Your task to perform on an android device: Open the stopwatch Image 0: 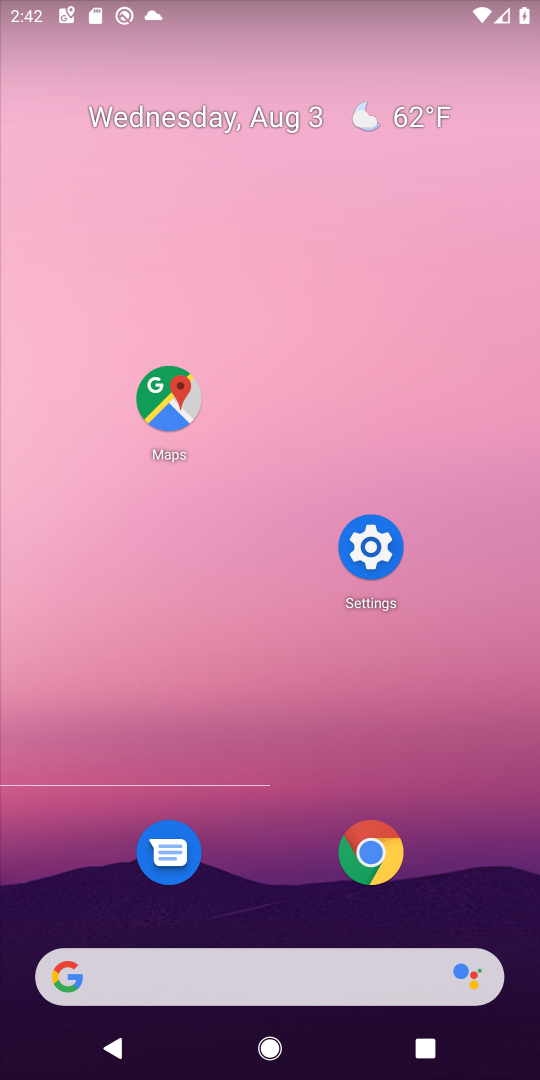
Step 0: drag from (243, 994) to (310, 363)
Your task to perform on an android device: Open the stopwatch Image 1: 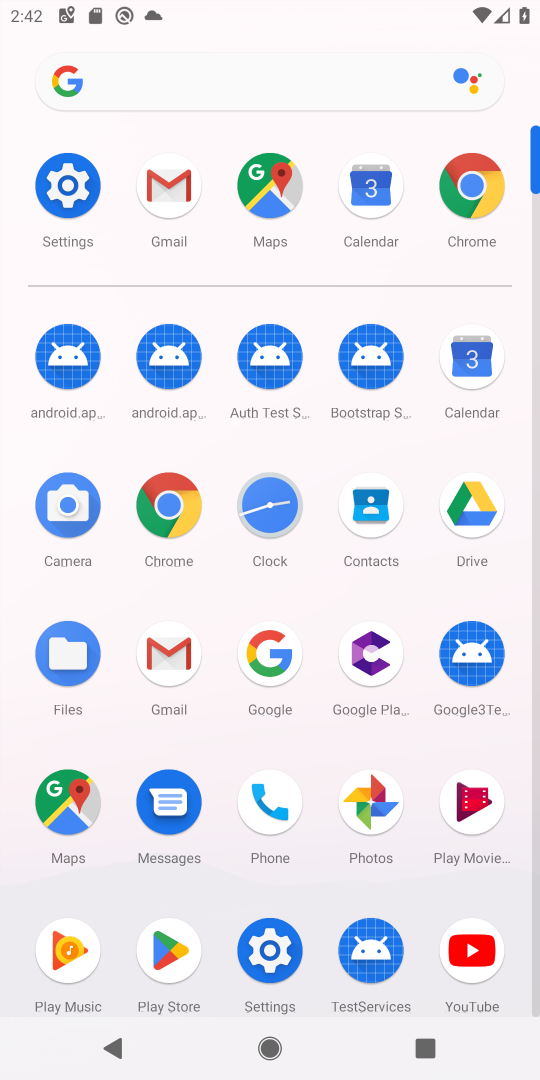
Step 1: click (273, 501)
Your task to perform on an android device: Open the stopwatch Image 2: 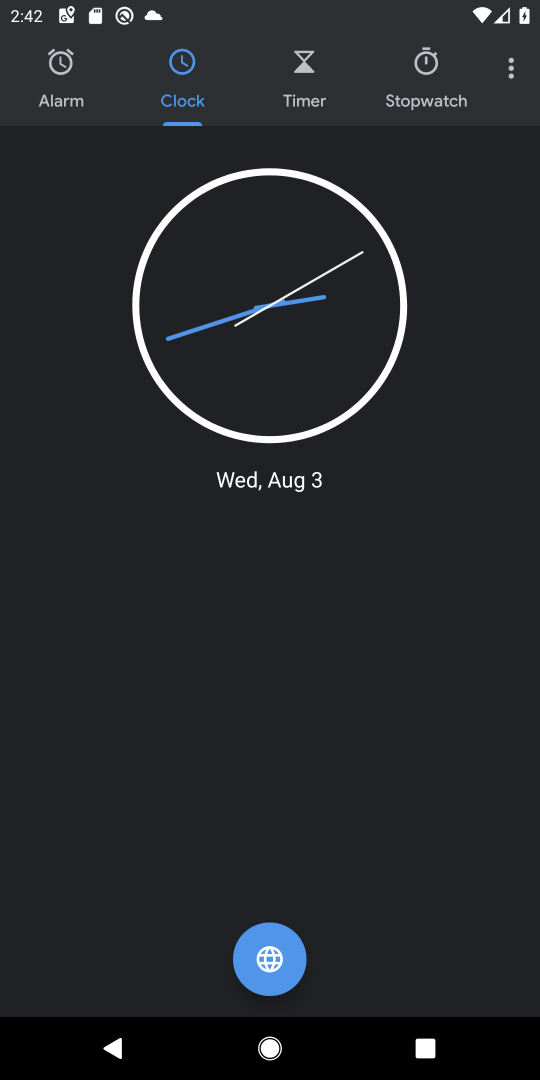
Step 2: click (421, 87)
Your task to perform on an android device: Open the stopwatch Image 3: 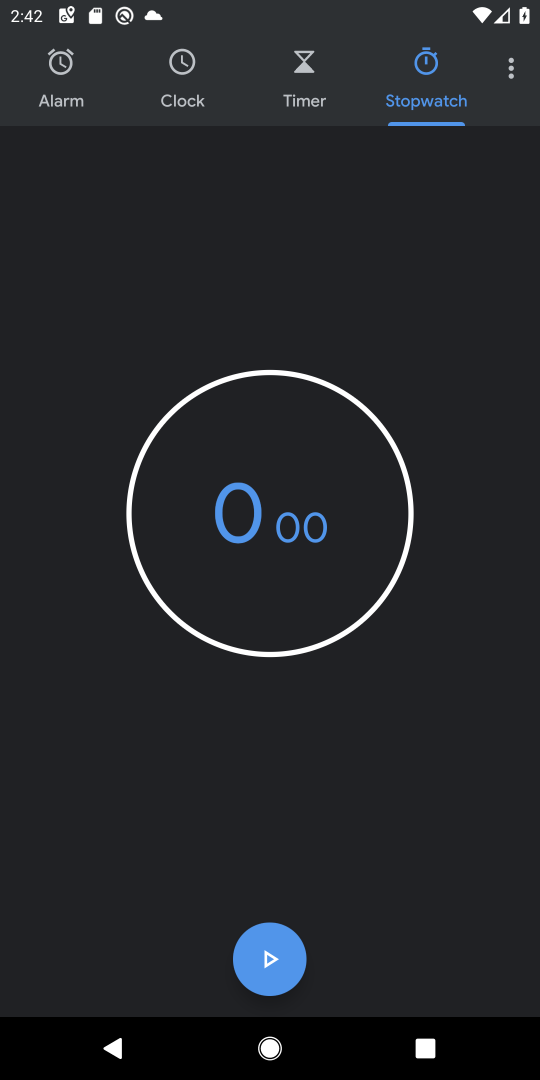
Step 3: task complete